Your task to perform on an android device: turn on location history Image 0: 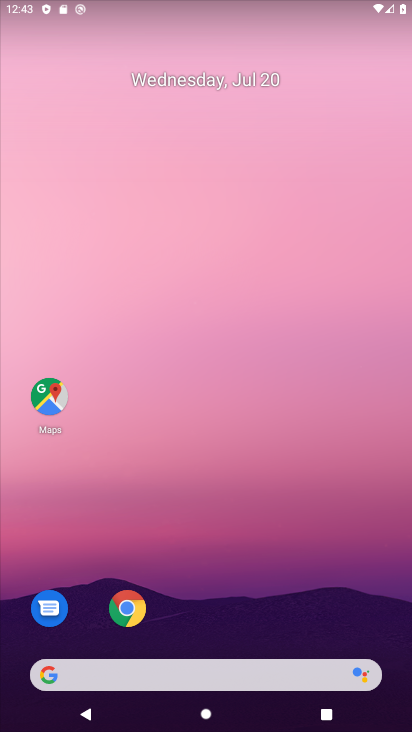
Step 0: drag from (173, 666) to (199, 158)
Your task to perform on an android device: turn on location history Image 1: 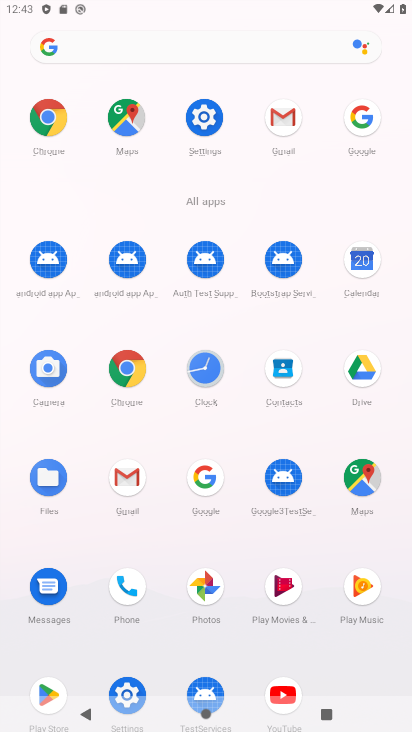
Step 1: click (200, 113)
Your task to perform on an android device: turn on location history Image 2: 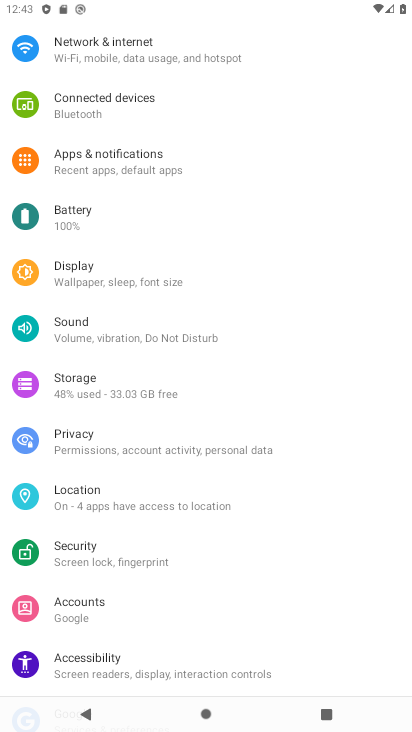
Step 2: click (98, 492)
Your task to perform on an android device: turn on location history Image 3: 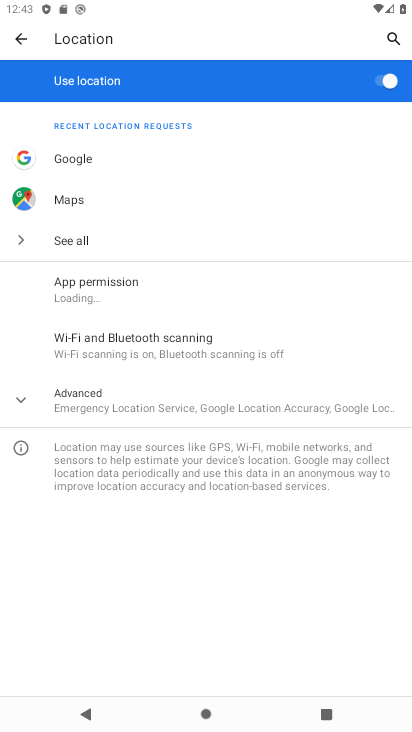
Step 3: click (86, 396)
Your task to perform on an android device: turn on location history Image 4: 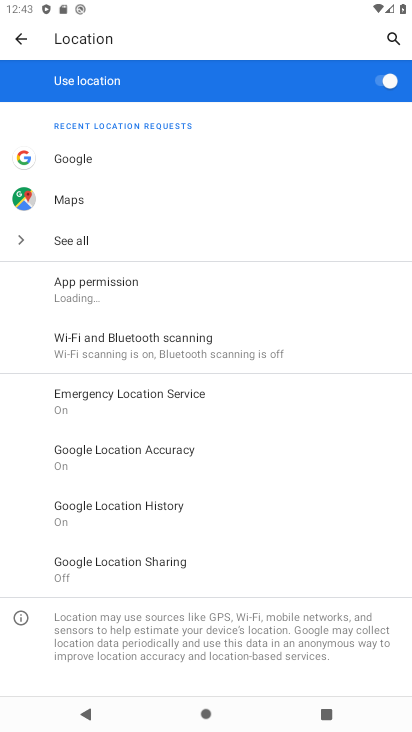
Step 4: click (134, 508)
Your task to perform on an android device: turn on location history Image 5: 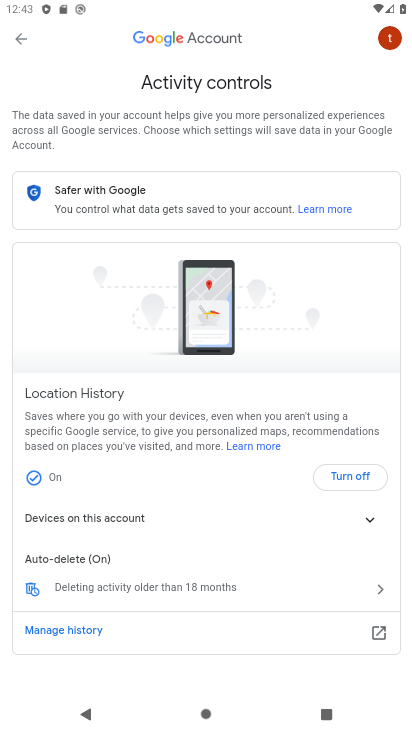
Step 5: task complete